Your task to perform on an android device: Find coffee shops on Maps Image 0: 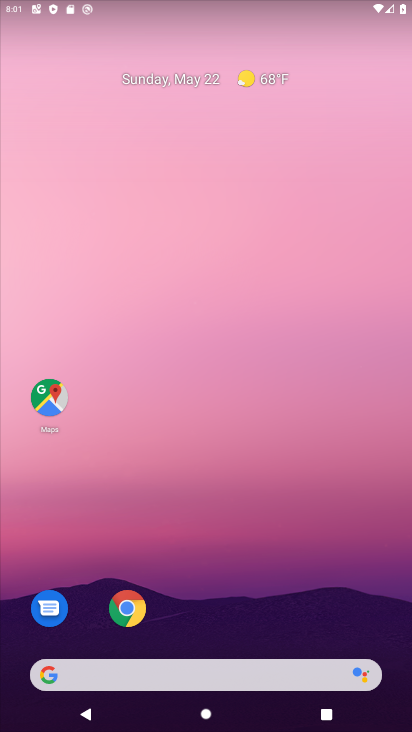
Step 0: drag from (220, 722) to (206, 165)
Your task to perform on an android device: Find coffee shops on Maps Image 1: 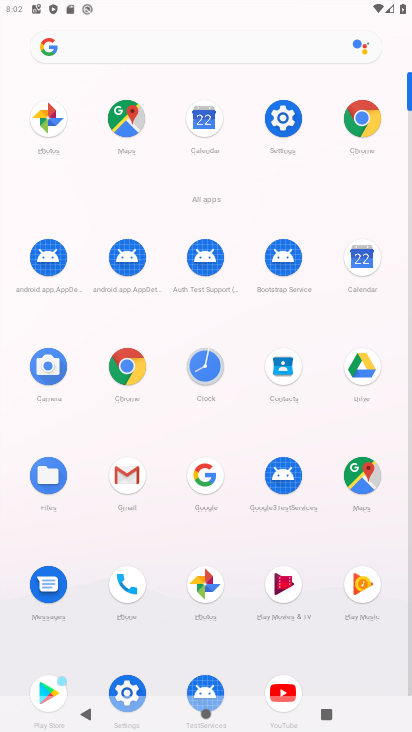
Step 1: click (359, 471)
Your task to perform on an android device: Find coffee shops on Maps Image 2: 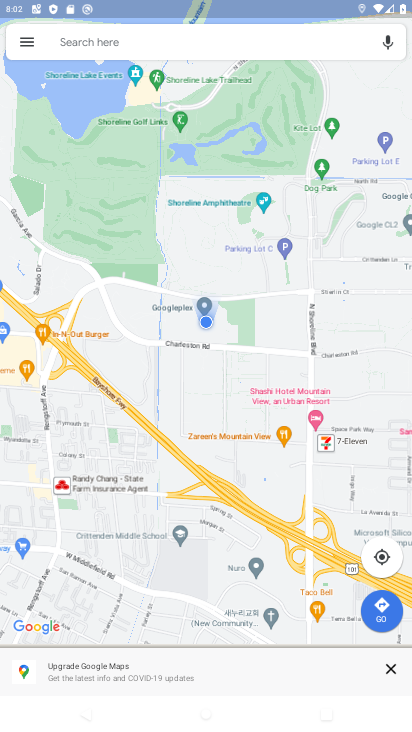
Step 2: click (102, 39)
Your task to perform on an android device: Find coffee shops on Maps Image 3: 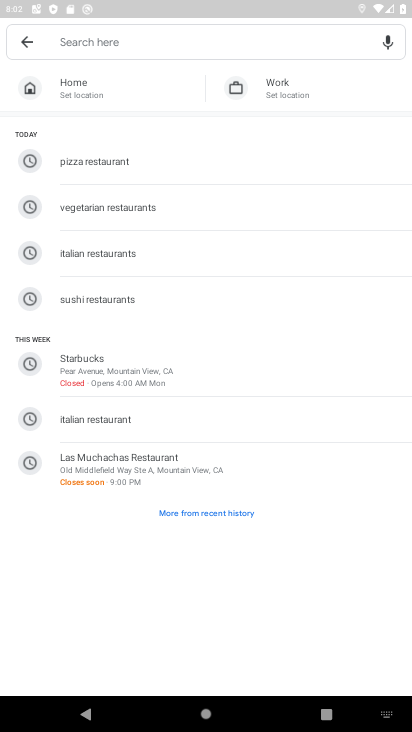
Step 3: type "coffee shops"
Your task to perform on an android device: Find coffee shops on Maps Image 4: 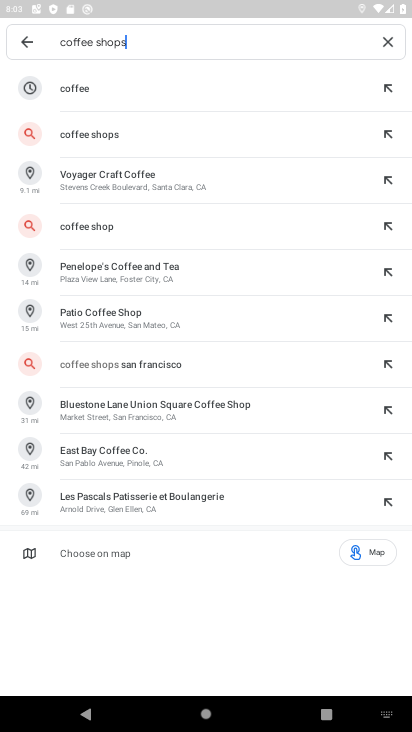
Step 4: click (97, 132)
Your task to perform on an android device: Find coffee shops on Maps Image 5: 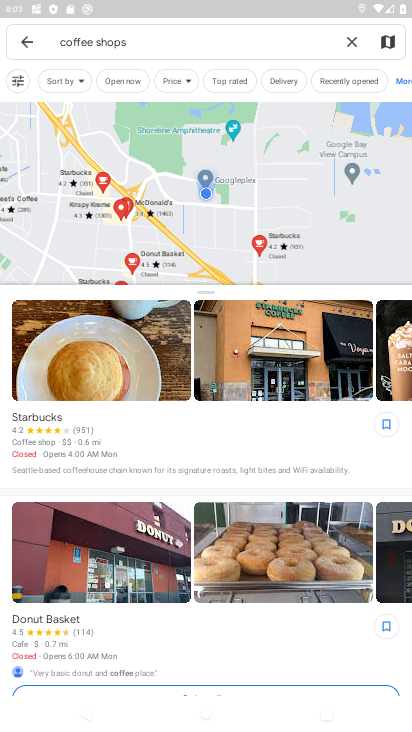
Step 5: task complete